Your task to perform on an android device: set default search engine in the chrome app Image 0: 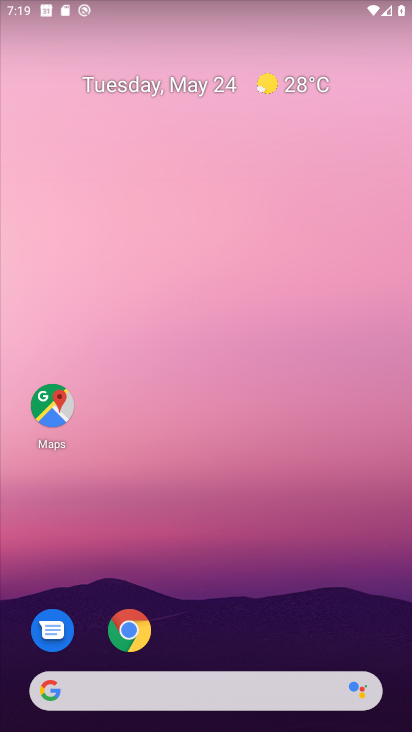
Step 0: press home button
Your task to perform on an android device: set default search engine in the chrome app Image 1: 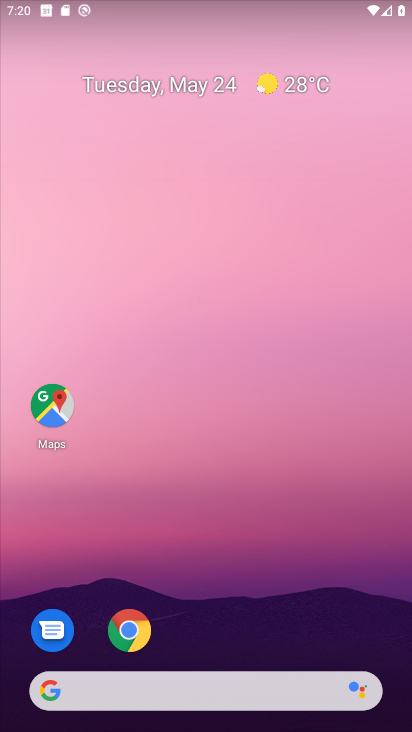
Step 1: drag from (244, 729) to (234, 39)
Your task to perform on an android device: set default search engine in the chrome app Image 2: 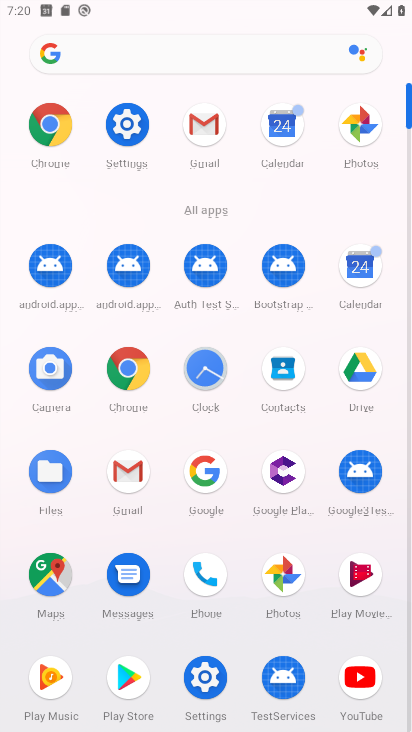
Step 2: click (117, 378)
Your task to perform on an android device: set default search engine in the chrome app Image 3: 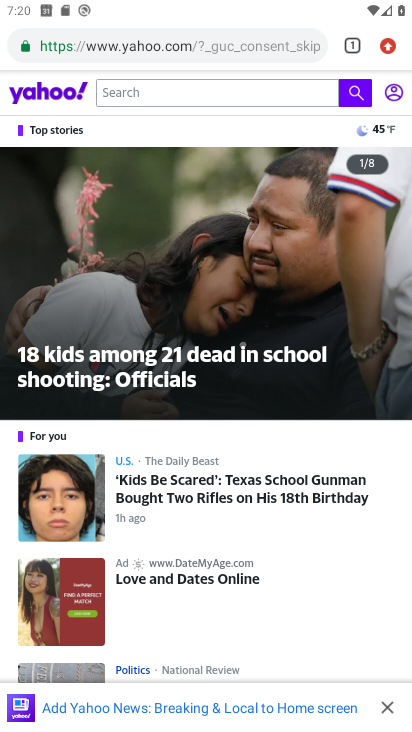
Step 3: click (388, 44)
Your task to perform on an android device: set default search engine in the chrome app Image 4: 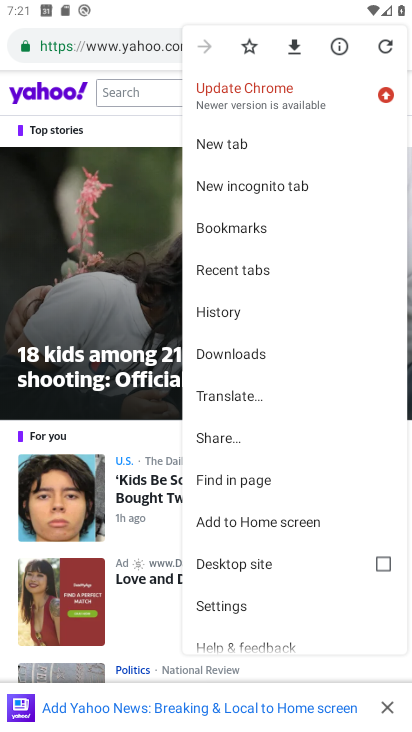
Step 4: click (223, 611)
Your task to perform on an android device: set default search engine in the chrome app Image 5: 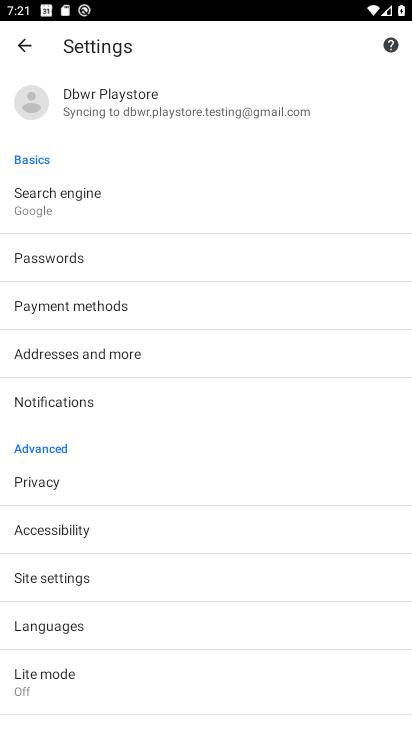
Step 5: click (53, 216)
Your task to perform on an android device: set default search engine in the chrome app Image 6: 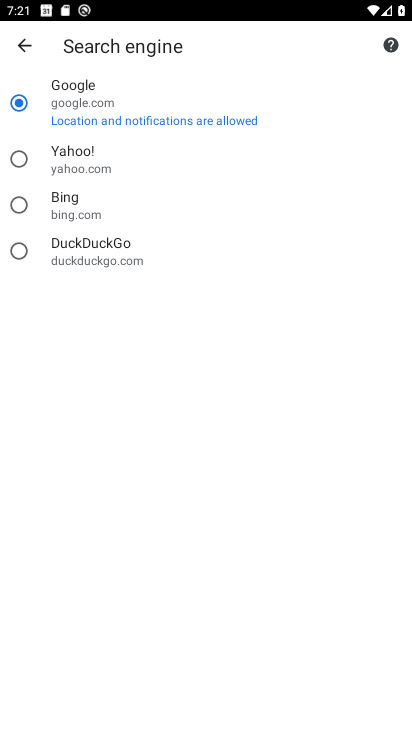
Step 6: task complete